Your task to perform on an android device: turn off sleep mode Image 0: 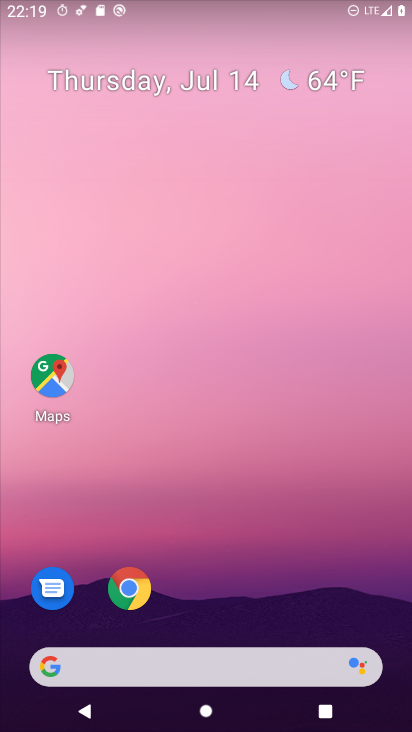
Step 0: drag from (363, 591) to (365, 128)
Your task to perform on an android device: turn off sleep mode Image 1: 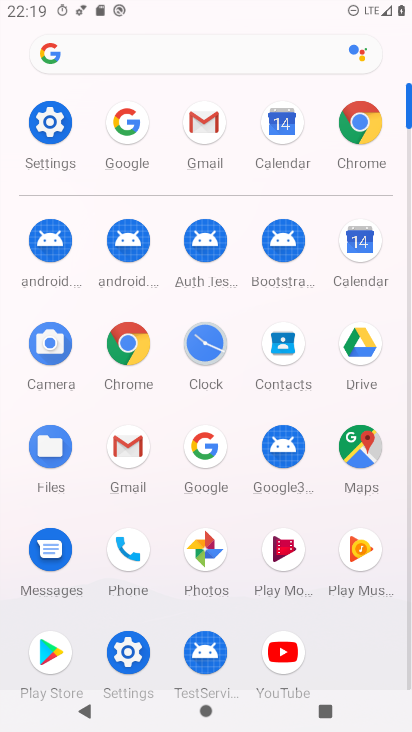
Step 1: drag from (326, 639) to (322, 497)
Your task to perform on an android device: turn off sleep mode Image 2: 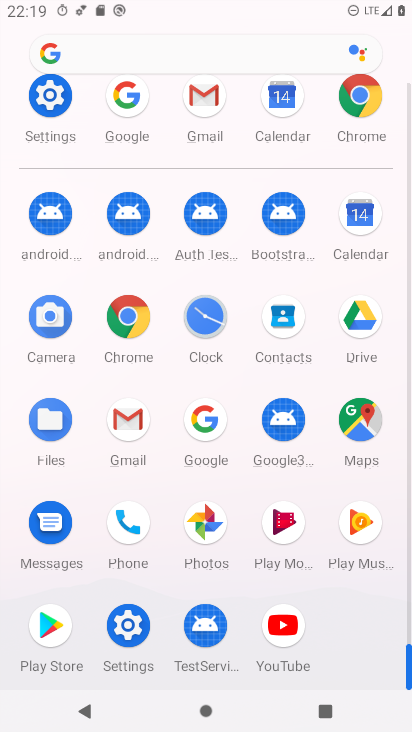
Step 2: click (141, 629)
Your task to perform on an android device: turn off sleep mode Image 3: 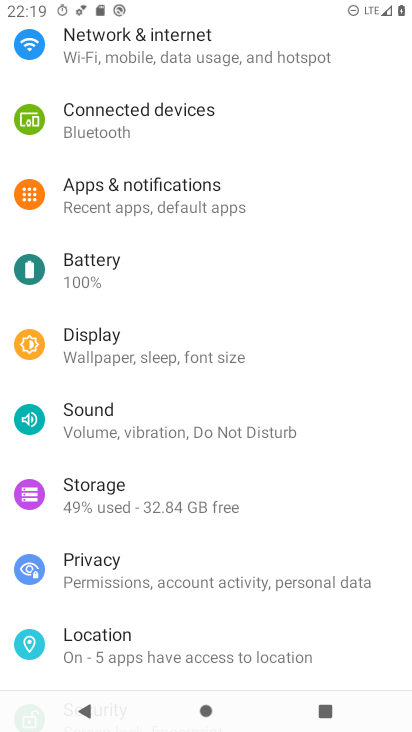
Step 3: drag from (378, 270) to (378, 365)
Your task to perform on an android device: turn off sleep mode Image 4: 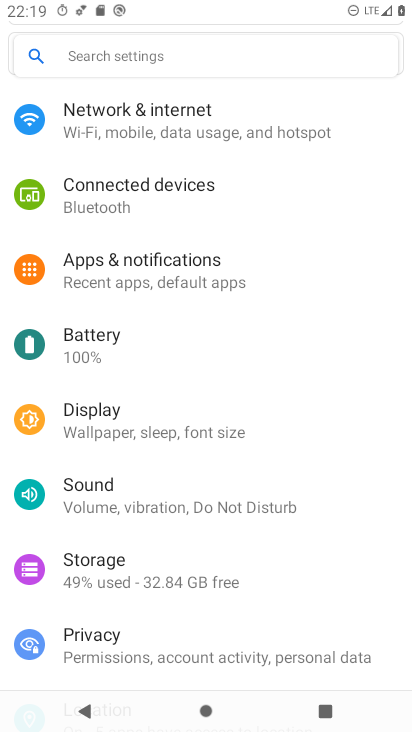
Step 4: drag from (343, 316) to (341, 394)
Your task to perform on an android device: turn off sleep mode Image 5: 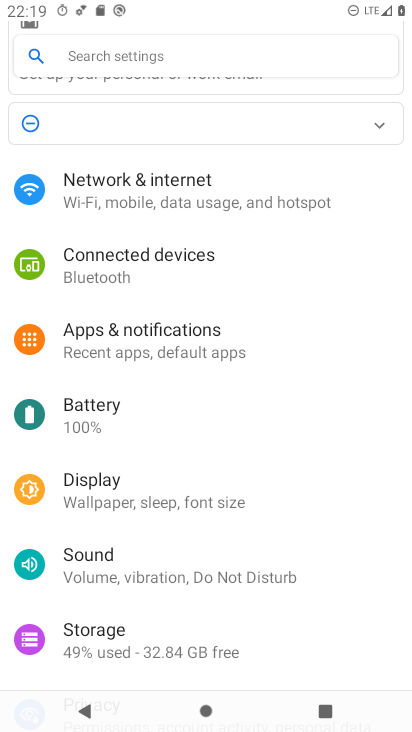
Step 5: drag from (362, 291) to (363, 404)
Your task to perform on an android device: turn off sleep mode Image 6: 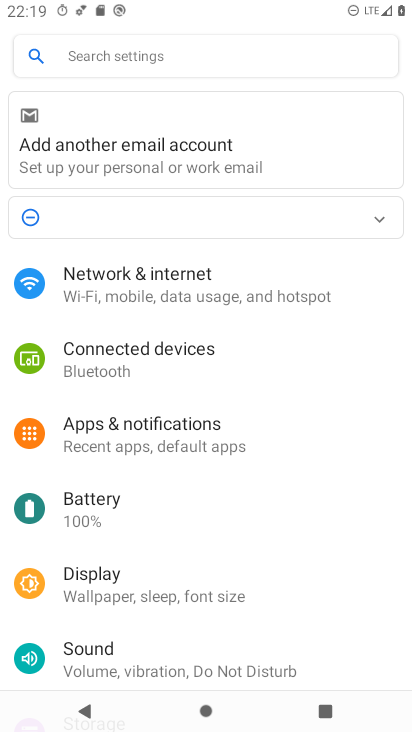
Step 6: drag from (349, 537) to (349, 465)
Your task to perform on an android device: turn off sleep mode Image 7: 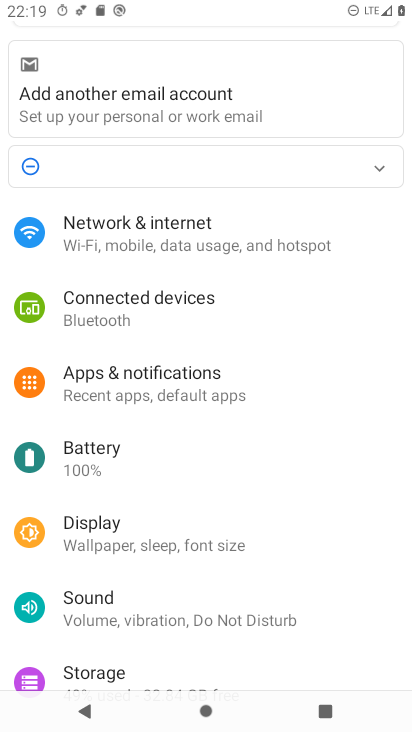
Step 7: drag from (343, 545) to (359, 450)
Your task to perform on an android device: turn off sleep mode Image 8: 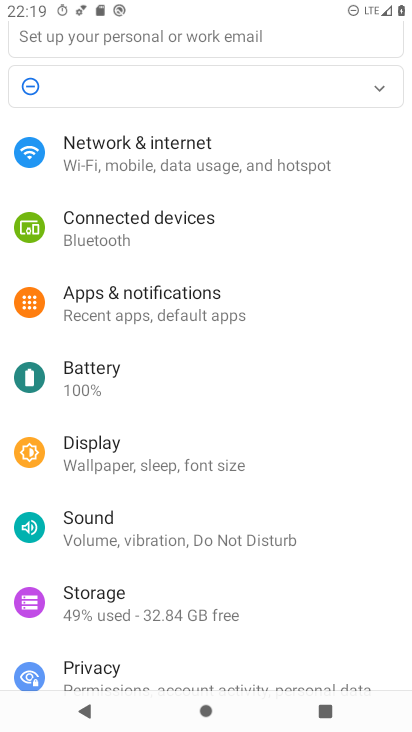
Step 8: drag from (343, 557) to (358, 426)
Your task to perform on an android device: turn off sleep mode Image 9: 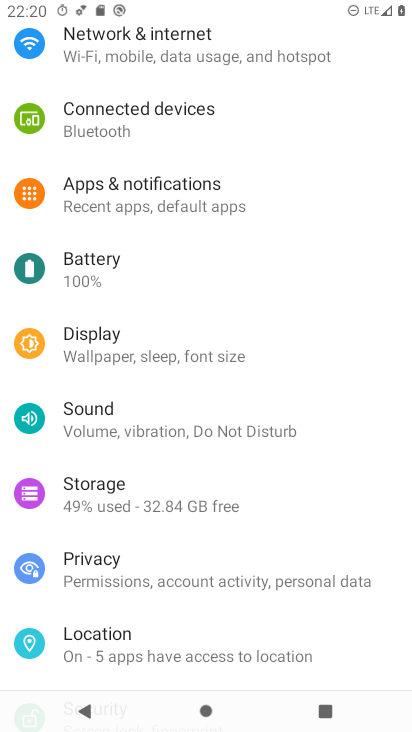
Step 9: click (214, 361)
Your task to perform on an android device: turn off sleep mode Image 10: 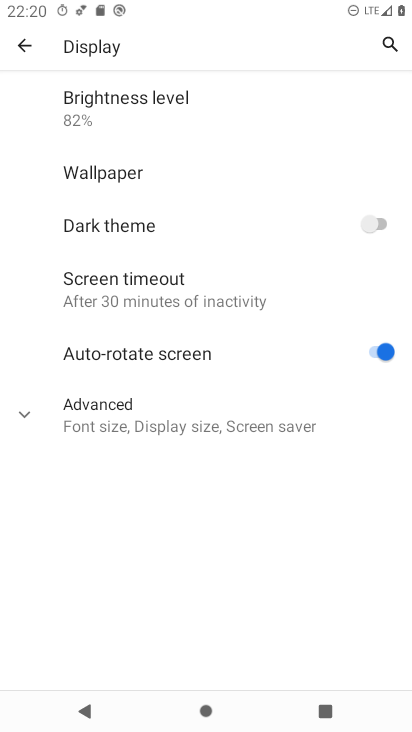
Step 10: click (216, 417)
Your task to perform on an android device: turn off sleep mode Image 11: 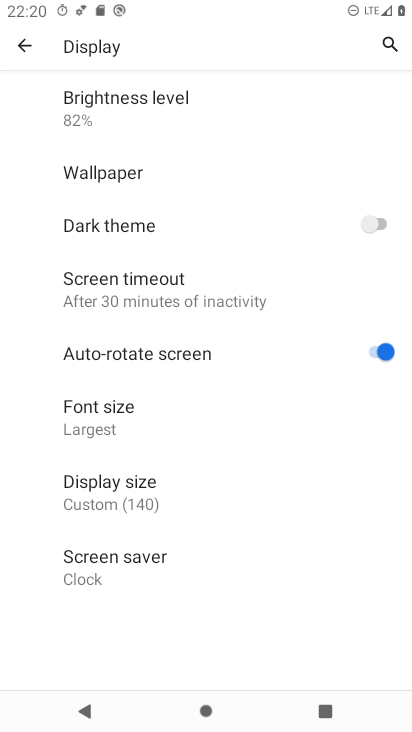
Step 11: task complete